Your task to perform on an android device: turn pop-ups on in chrome Image 0: 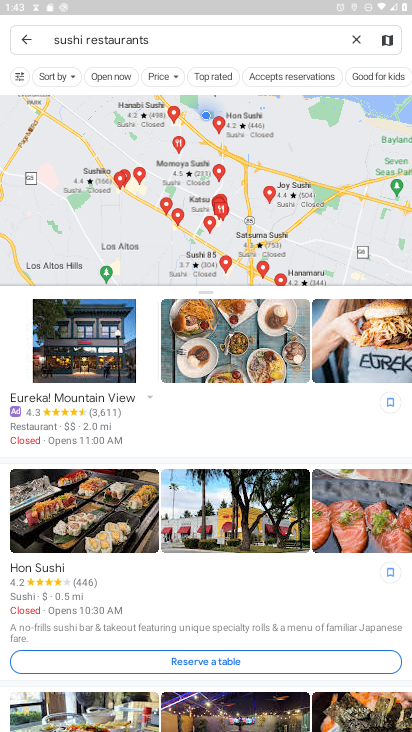
Step 0: press home button
Your task to perform on an android device: turn pop-ups on in chrome Image 1: 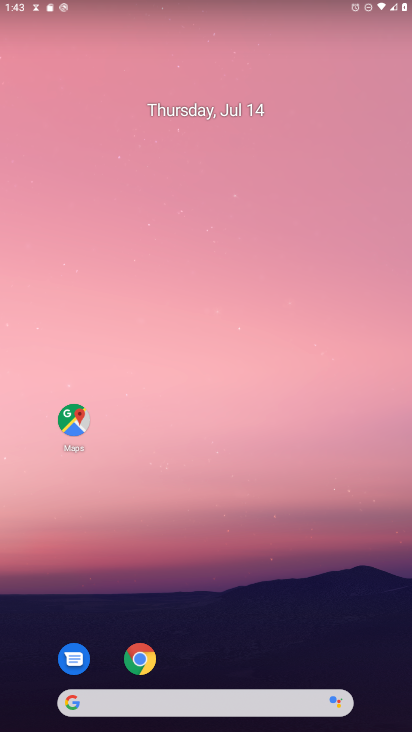
Step 1: click (145, 668)
Your task to perform on an android device: turn pop-ups on in chrome Image 2: 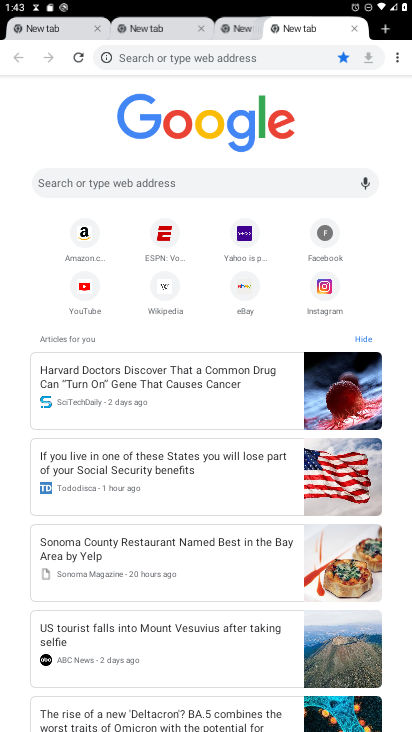
Step 2: click (394, 55)
Your task to perform on an android device: turn pop-ups on in chrome Image 3: 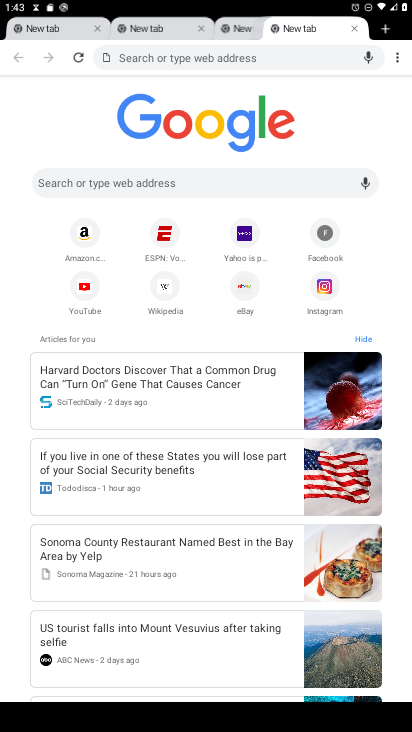
Step 3: task complete